Your task to perform on an android device: Go to settings Image 0: 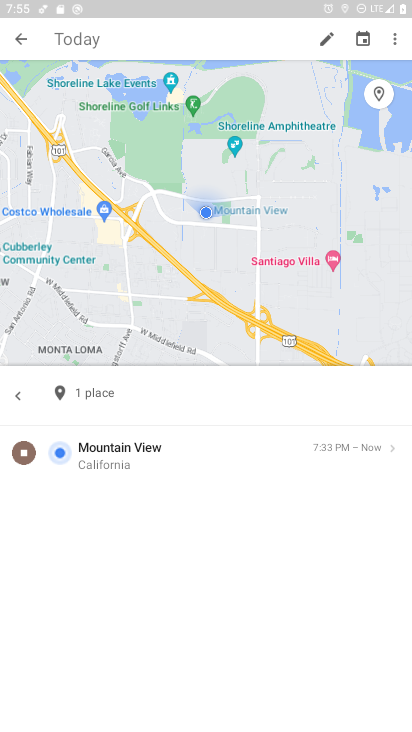
Step 0: press home button
Your task to perform on an android device: Go to settings Image 1: 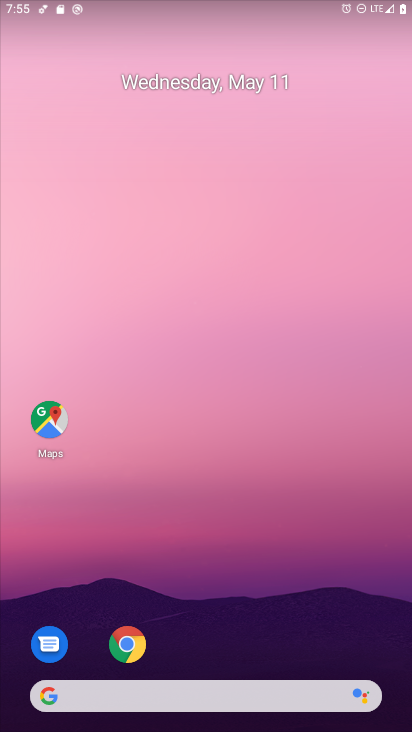
Step 1: drag from (195, 642) to (95, 147)
Your task to perform on an android device: Go to settings Image 2: 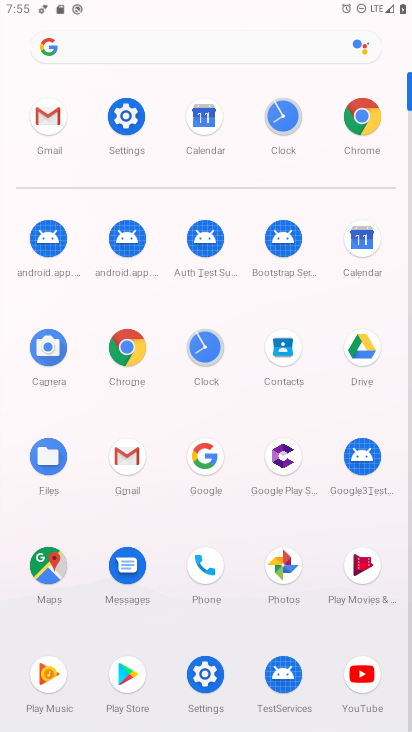
Step 2: click (112, 118)
Your task to perform on an android device: Go to settings Image 3: 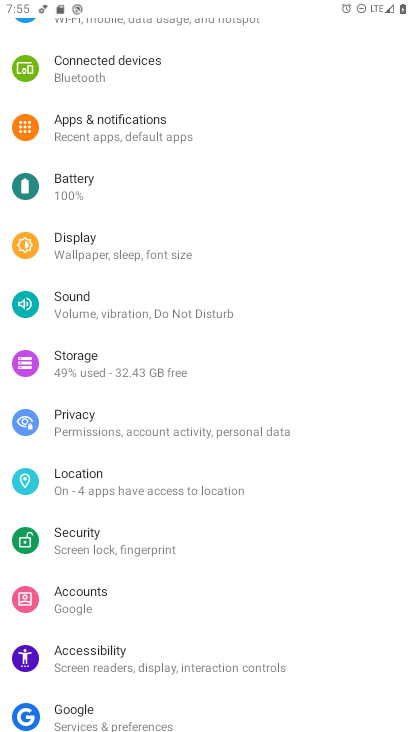
Step 3: task complete